Your task to perform on an android device: add a label to a message in the gmail app Image 0: 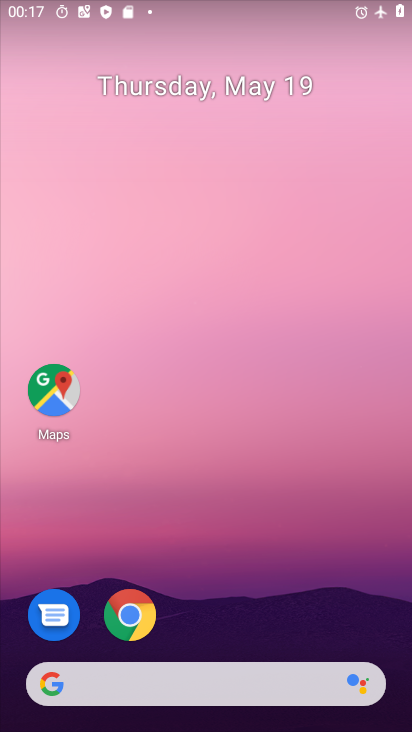
Step 0: drag from (73, 372) to (195, 168)
Your task to perform on an android device: add a label to a message in the gmail app Image 1: 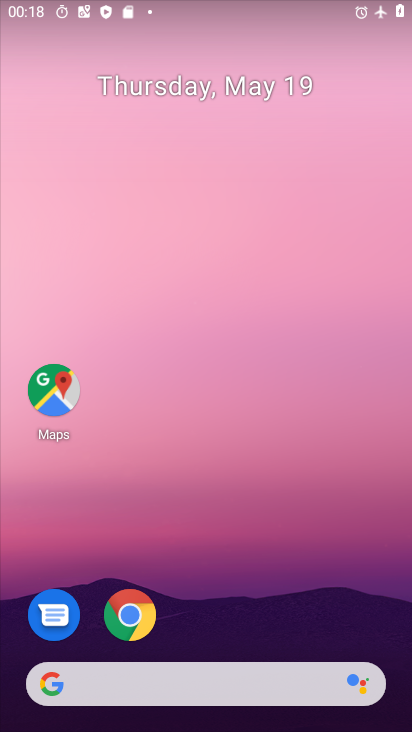
Step 1: drag from (12, 569) to (192, 128)
Your task to perform on an android device: add a label to a message in the gmail app Image 2: 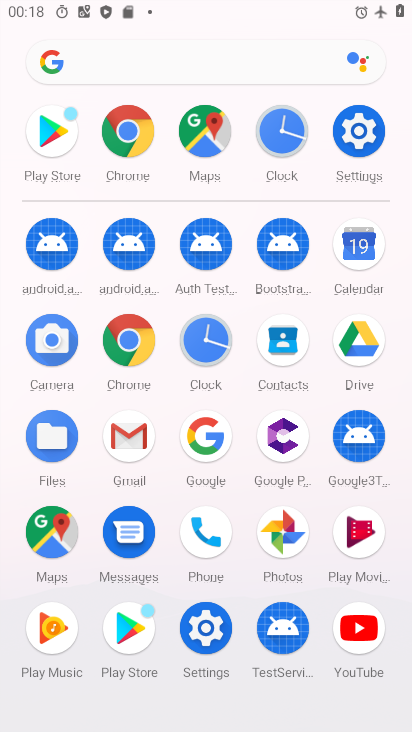
Step 2: click (120, 432)
Your task to perform on an android device: add a label to a message in the gmail app Image 3: 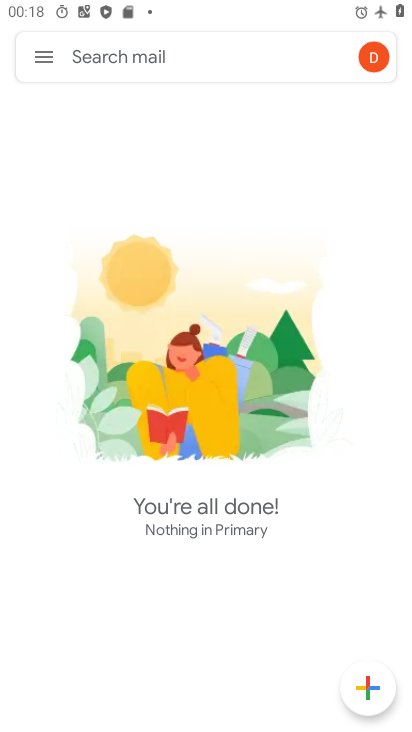
Step 3: click (34, 57)
Your task to perform on an android device: add a label to a message in the gmail app Image 4: 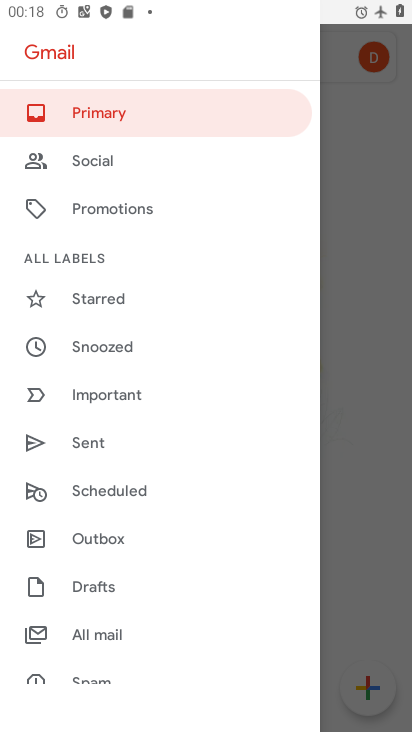
Step 4: drag from (358, 19) to (361, 385)
Your task to perform on an android device: add a label to a message in the gmail app Image 5: 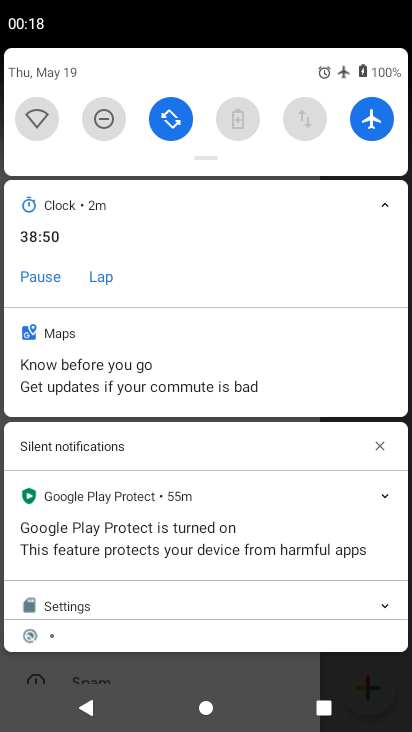
Step 5: click (367, 121)
Your task to perform on an android device: add a label to a message in the gmail app Image 6: 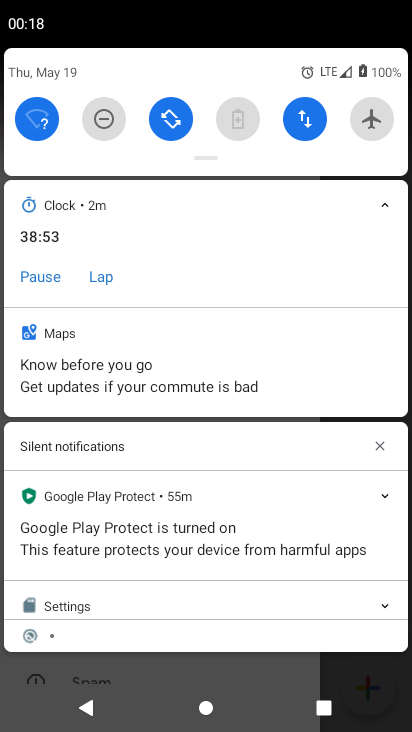
Step 6: task complete